Your task to perform on an android device: open chrome and create a bookmark for the current page Image 0: 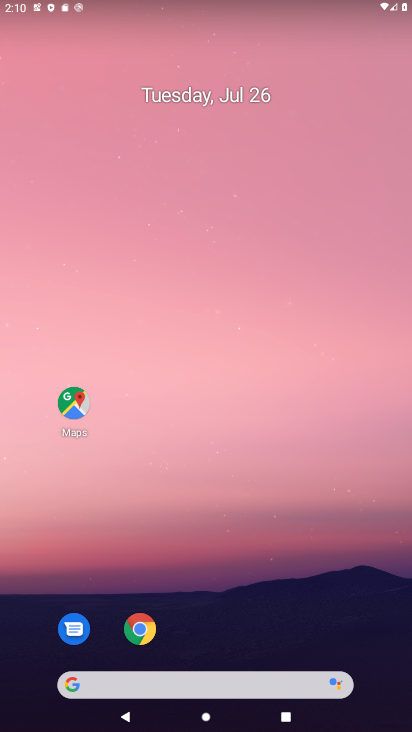
Step 0: click (151, 627)
Your task to perform on an android device: open chrome and create a bookmark for the current page Image 1: 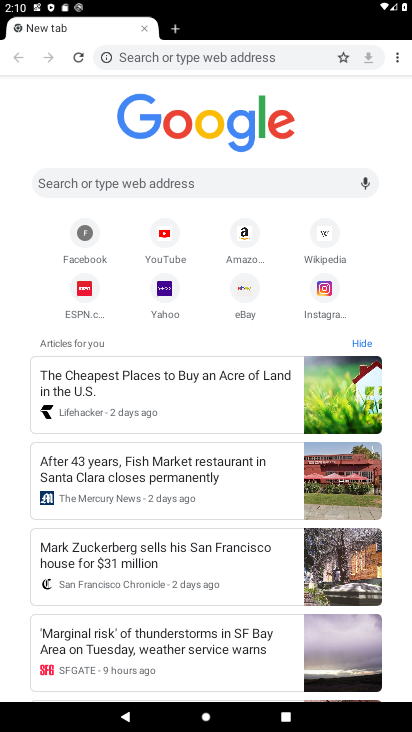
Step 1: click (156, 498)
Your task to perform on an android device: open chrome and create a bookmark for the current page Image 2: 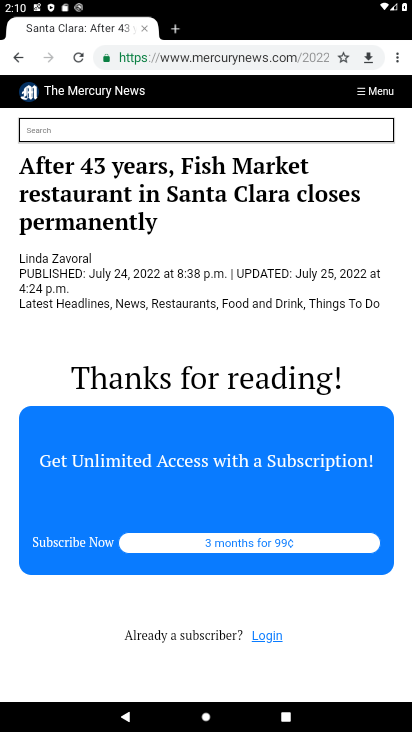
Step 2: click (346, 58)
Your task to perform on an android device: open chrome and create a bookmark for the current page Image 3: 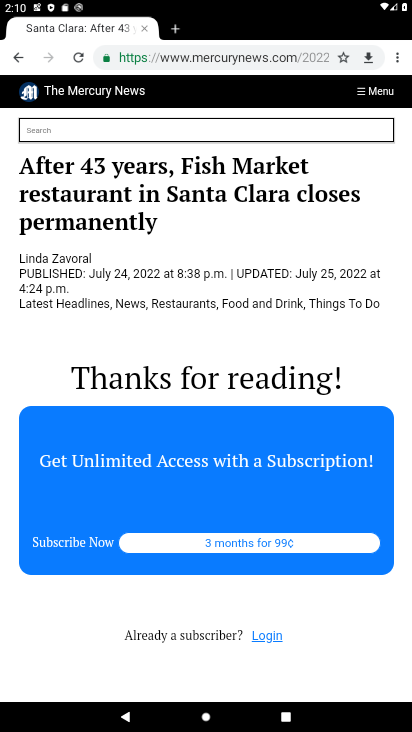
Step 3: click (338, 61)
Your task to perform on an android device: open chrome and create a bookmark for the current page Image 4: 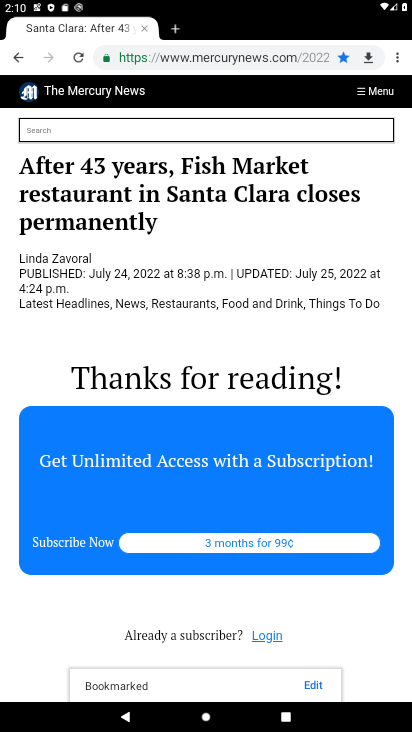
Step 4: task complete